Your task to perform on an android device: Open Google Chrome Image 0: 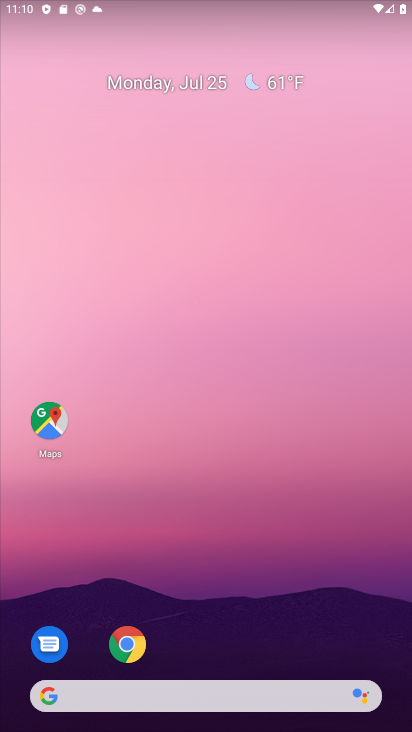
Step 0: drag from (200, 607) to (212, 200)
Your task to perform on an android device: Open Google Chrome Image 1: 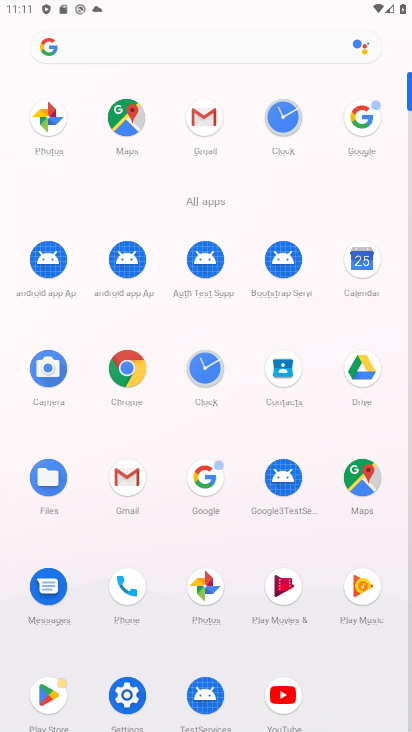
Step 1: click (200, 484)
Your task to perform on an android device: Open Google Chrome Image 2: 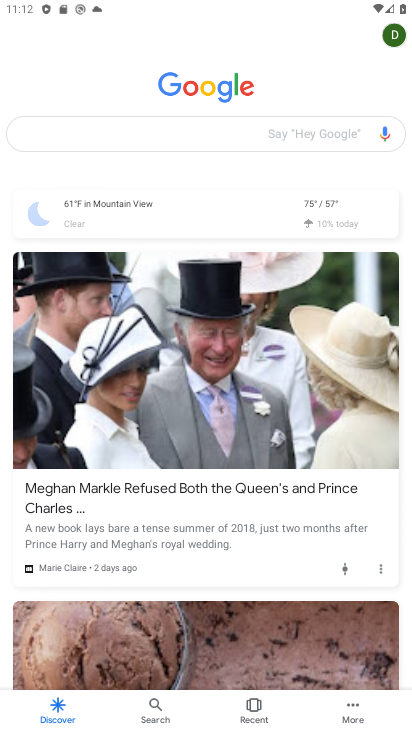
Step 2: task complete